Your task to perform on an android device: toggle airplane mode Image 0: 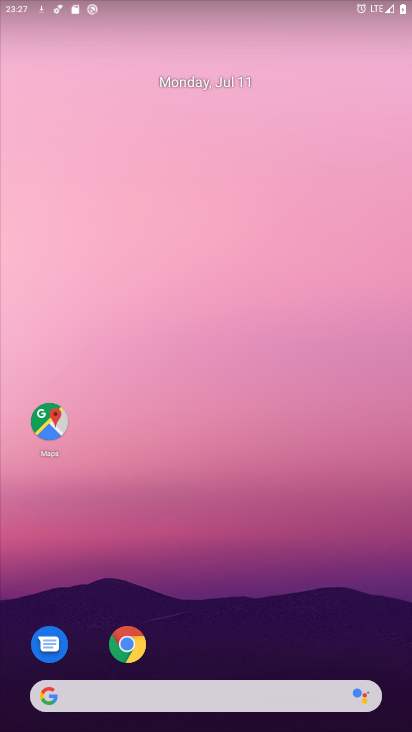
Step 0: drag from (245, 604) to (235, 166)
Your task to perform on an android device: toggle airplane mode Image 1: 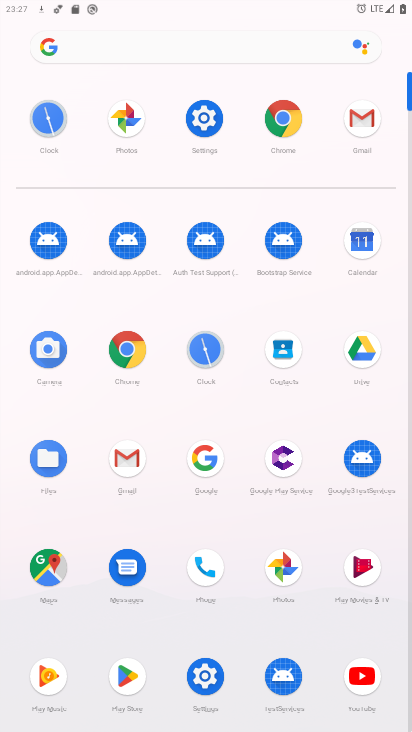
Step 1: click (199, 123)
Your task to perform on an android device: toggle airplane mode Image 2: 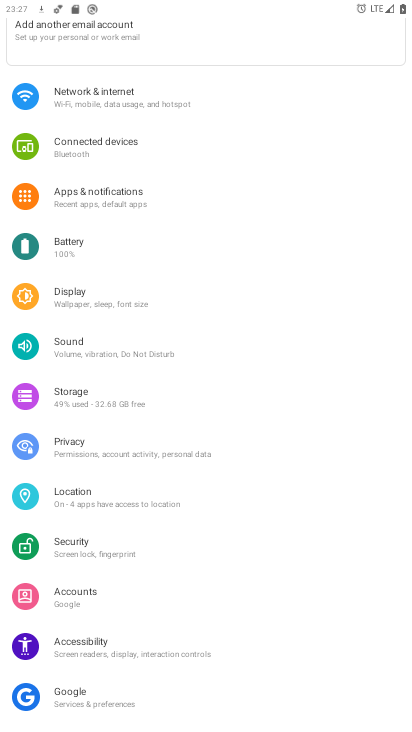
Step 2: click (143, 86)
Your task to perform on an android device: toggle airplane mode Image 3: 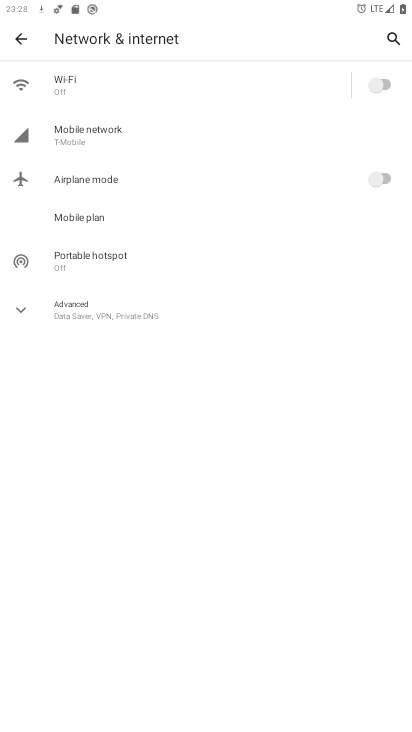
Step 3: click (385, 165)
Your task to perform on an android device: toggle airplane mode Image 4: 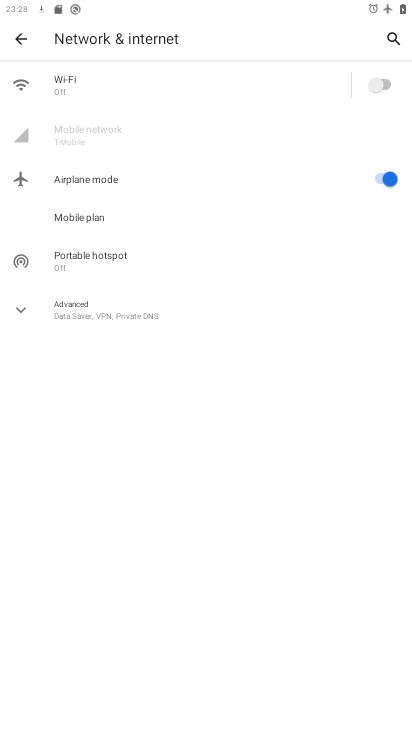
Step 4: task complete